Your task to perform on an android device: Go to wifi settings Image 0: 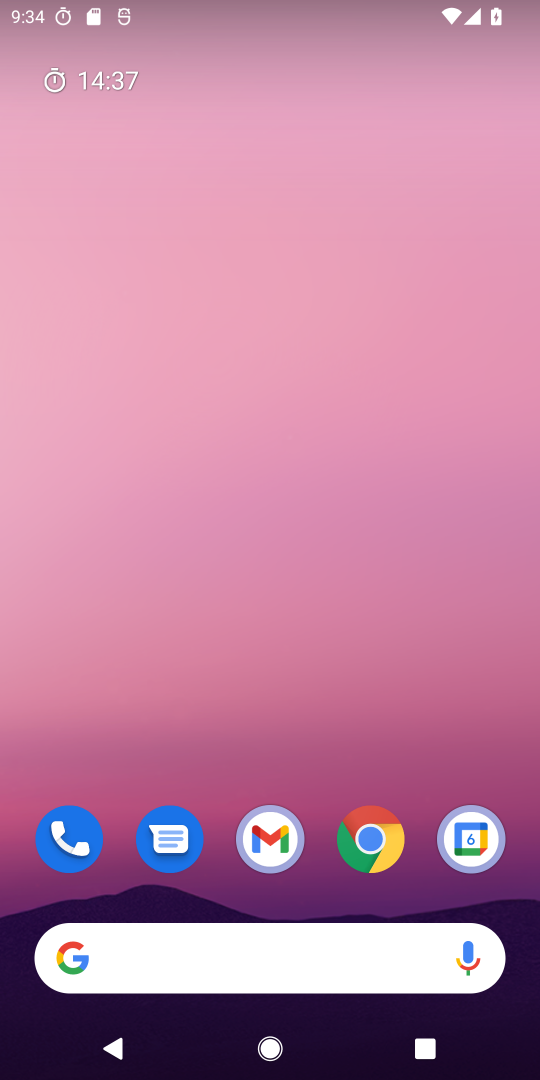
Step 0: drag from (316, 795) to (340, 147)
Your task to perform on an android device: Go to wifi settings Image 1: 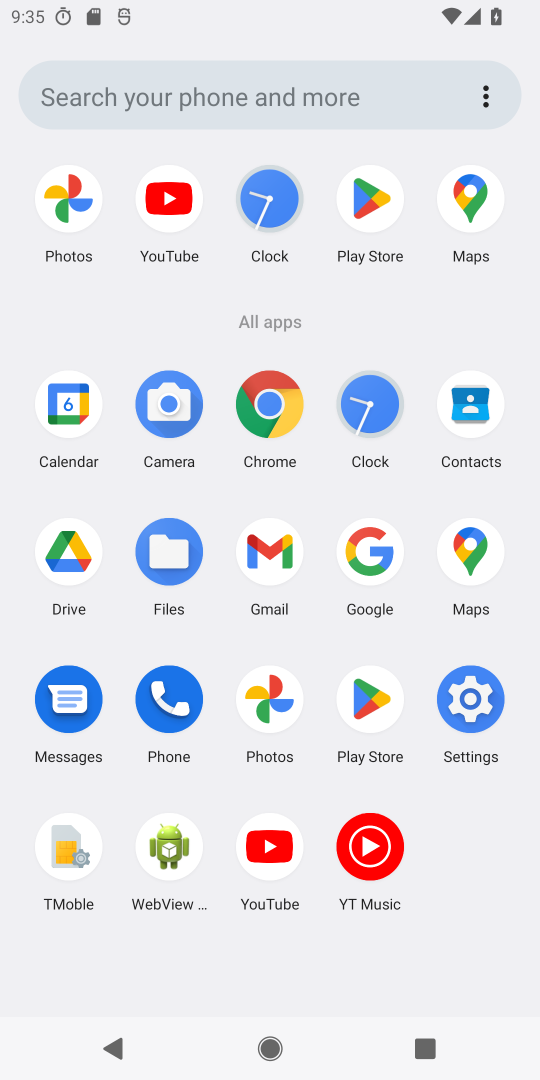
Step 1: click (471, 697)
Your task to perform on an android device: Go to wifi settings Image 2: 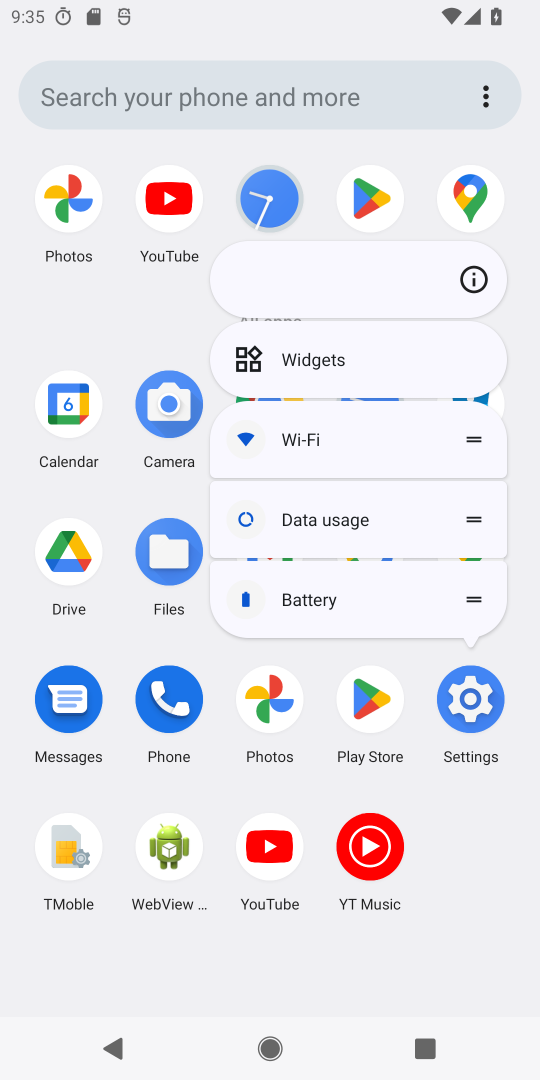
Step 2: click (473, 689)
Your task to perform on an android device: Go to wifi settings Image 3: 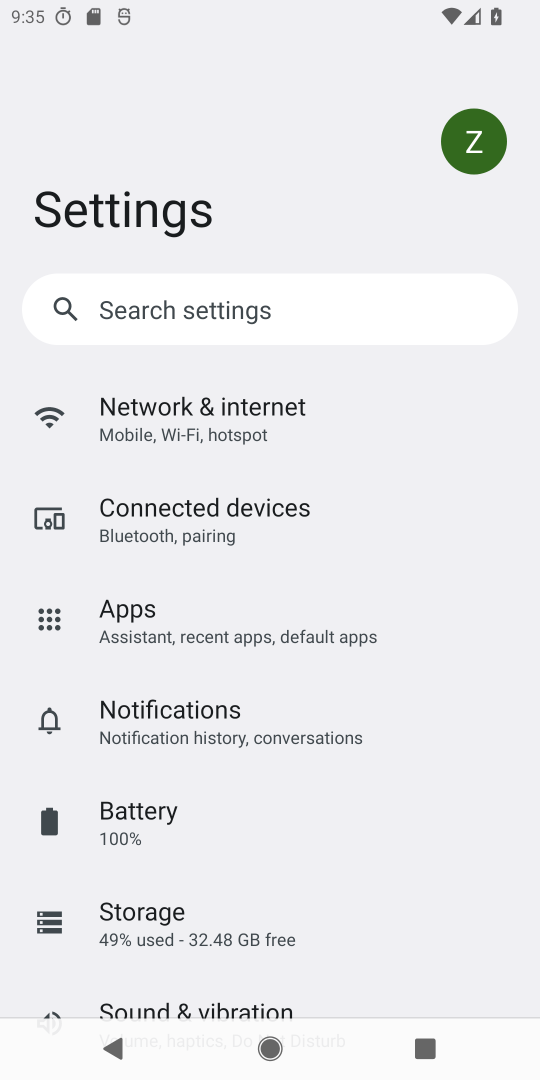
Step 3: click (241, 418)
Your task to perform on an android device: Go to wifi settings Image 4: 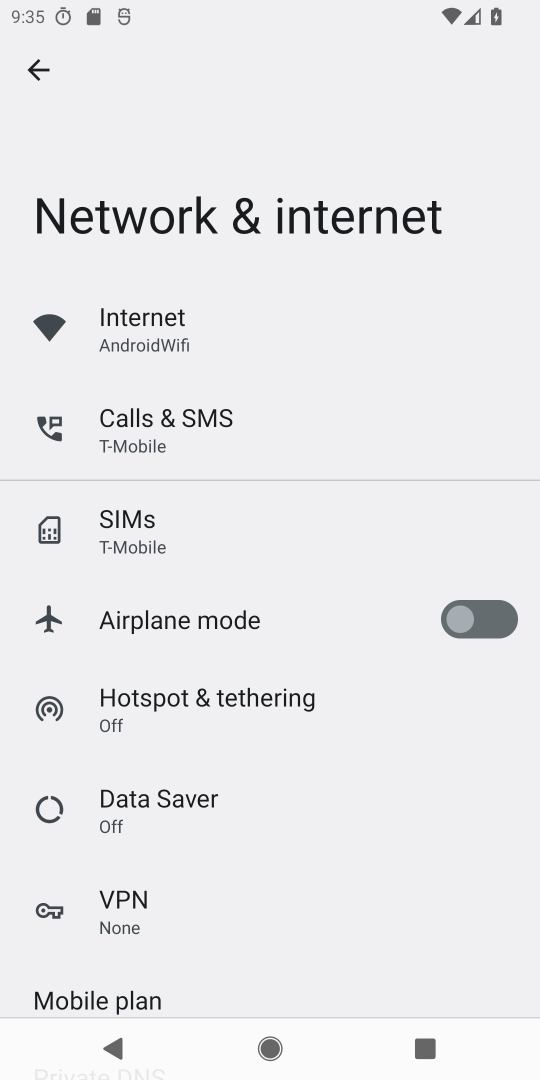
Step 4: click (230, 320)
Your task to perform on an android device: Go to wifi settings Image 5: 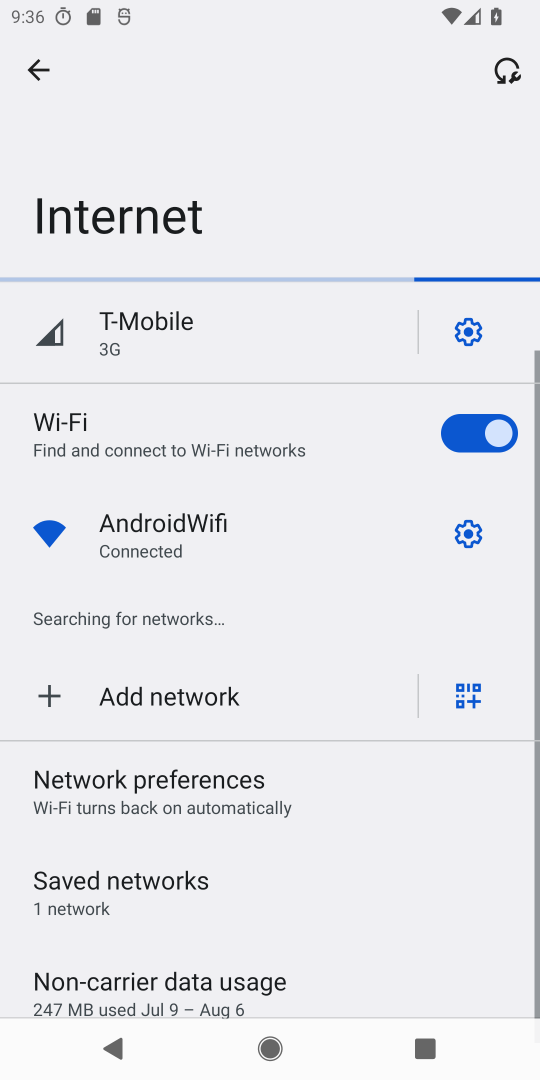
Step 5: task complete